Your task to perform on an android device: turn on notifications settings in the gmail app Image 0: 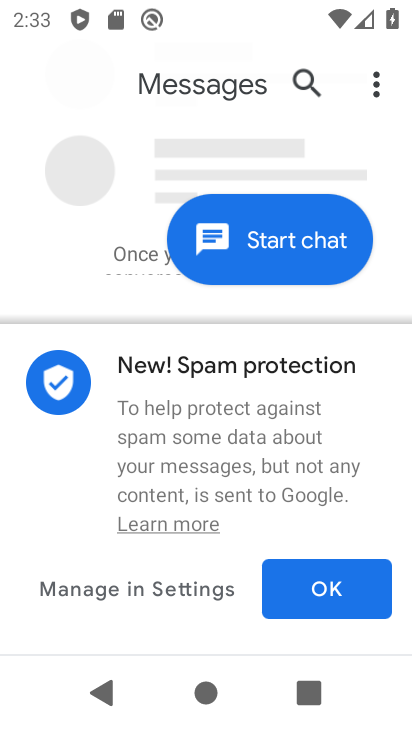
Step 0: press home button
Your task to perform on an android device: turn on notifications settings in the gmail app Image 1: 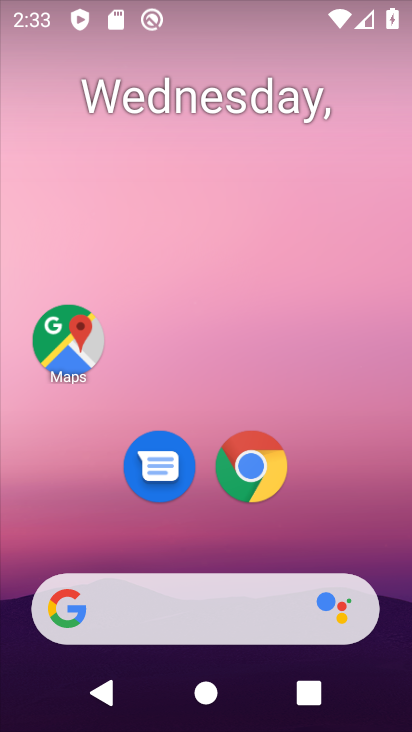
Step 1: drag from (406, 616) to (289, 205)
Your task to perform on an android device: turn on notifications settings in the gmail app Image 2: 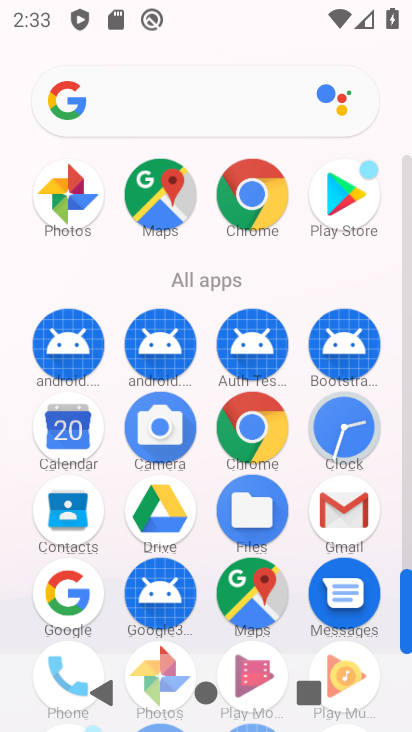
Step 2: click (344, 504)
Your task to perform on an android device: turn on notifications settings in the gmail app Image 3: 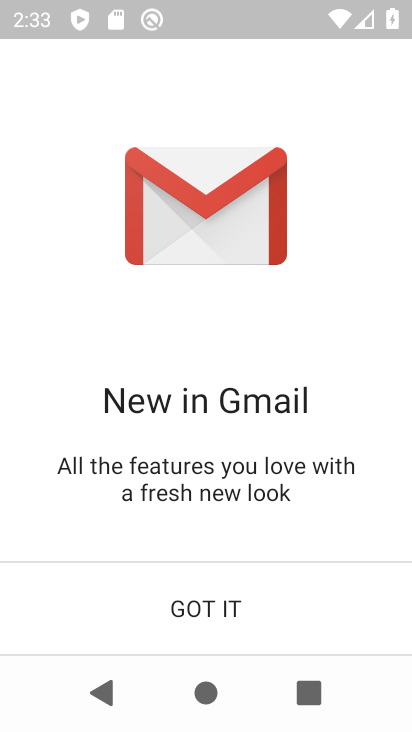
Step 3: click (191, 618)
Your task to perform on an android device: turn on notifications settings in the gmail app Image 4: 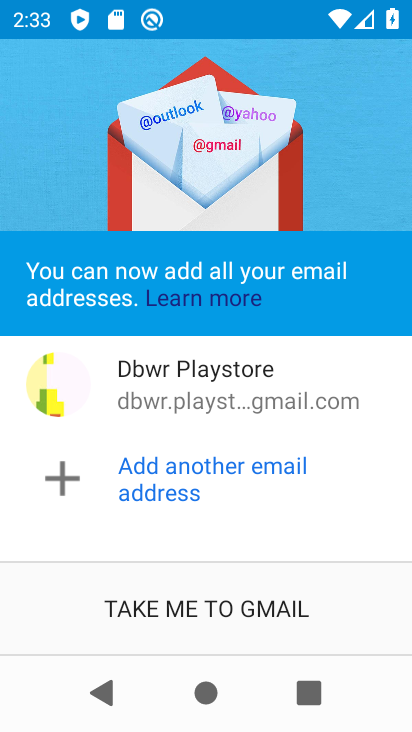
Step 4: click (191, 618)
Your task to perform on an android device: turn on notifications settings in the gmail app Image 5: 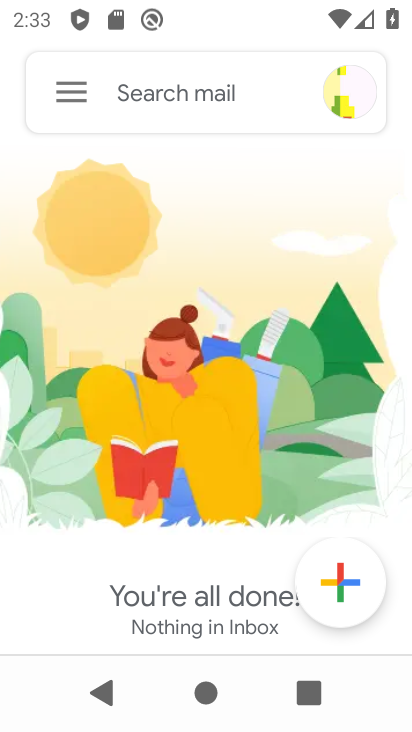
Step 5: click (69, 89)
Your task to perform on an android device: turn on notifications settings in the gmail app Image 6: 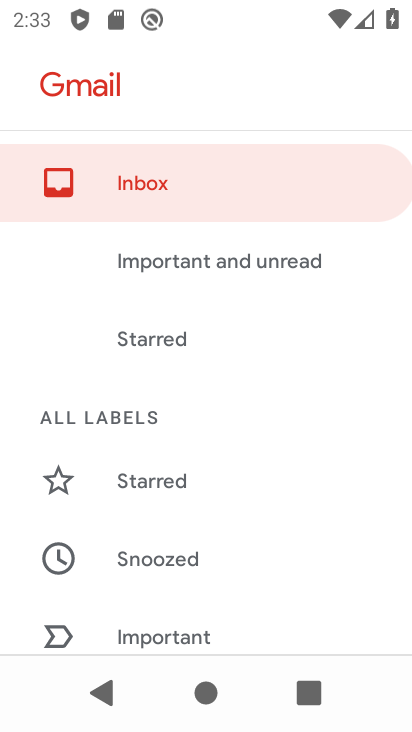
Step 6: drag from (273, 604) to (278, 256)
Your task to perform on an android device: turn on notifications settings in the gmail app Image 7: 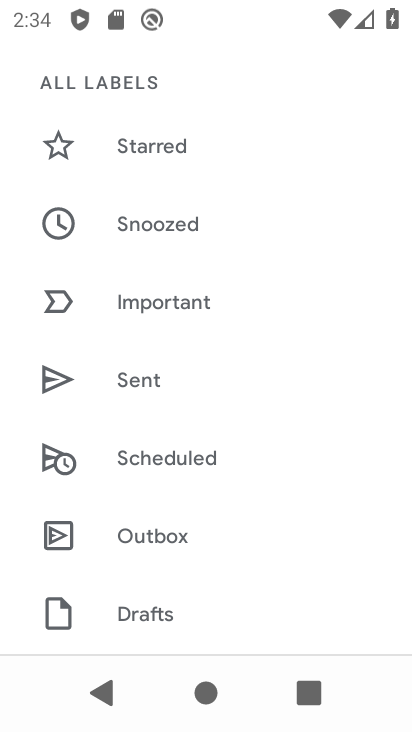
Step 7: drag from (268, 557) to (283, 241)
Your task to perform on an android device: turn on notifications settings in the gmail app Image 8: 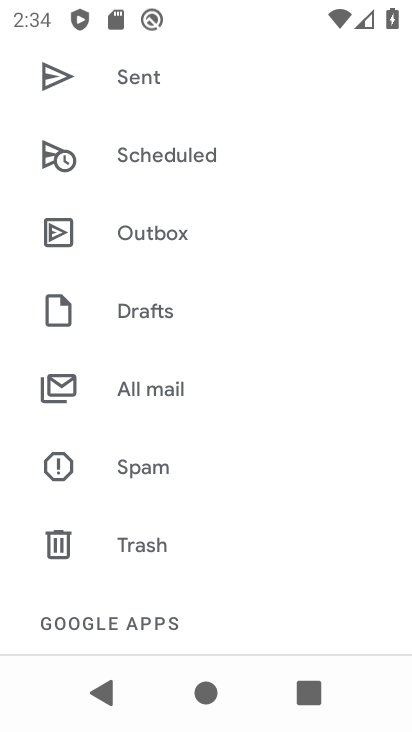
Step 8: drag from (215, 584) to (209, 168)
Your task to perform on an android device: turn on notifications settings in the gmail app Image 9: 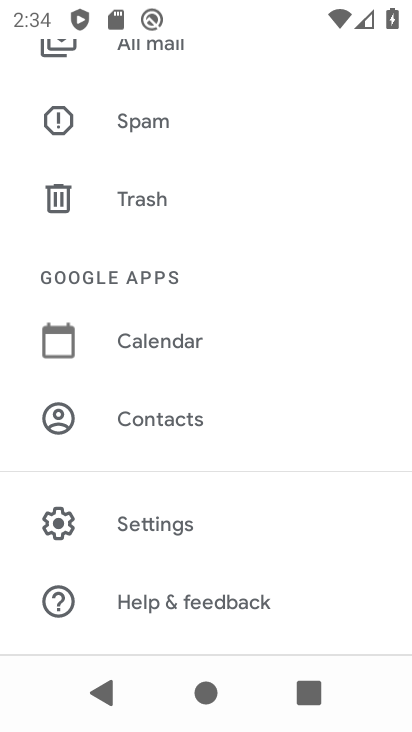
Step 9: click (144, 521)
Your task to perform on an android device: turn on notifications settings in the gmail app Image 10: 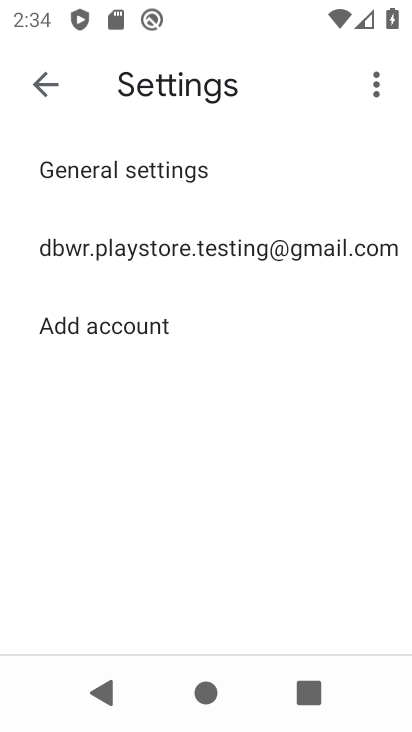
Step 10: click (140, 257)
Your task to perform on an android device: turn on notifications settings in the gmail app Image 11: 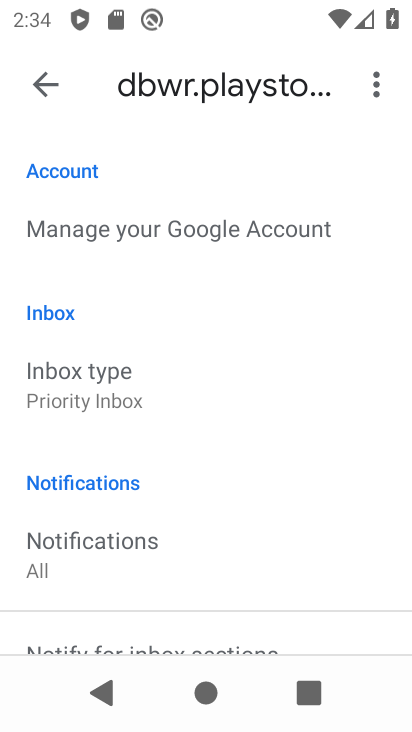
Step 11: drag from (202, 576) to (225, 192)
Your task to perform on an android device: turn on notifications settings in the gmail app Image 12: 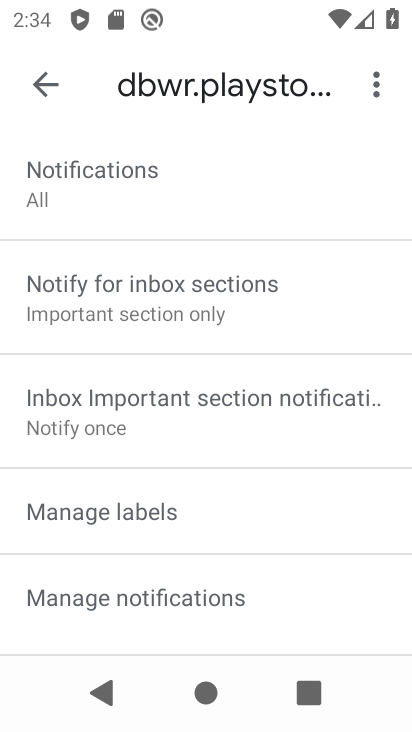
Step 12: click (138, 596)
Your task to perform on an android device: turn on notifications settings in the gmail app Image 13: 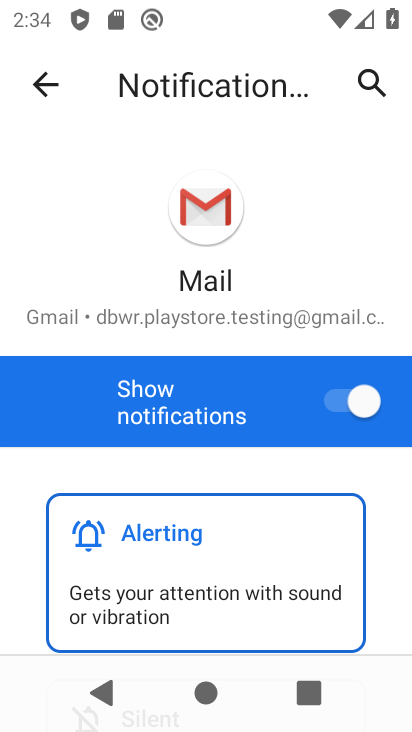
Step 13: task complete